Your task to perform on an android device: Open Google Chrome and open the bookmarks view Image 0: 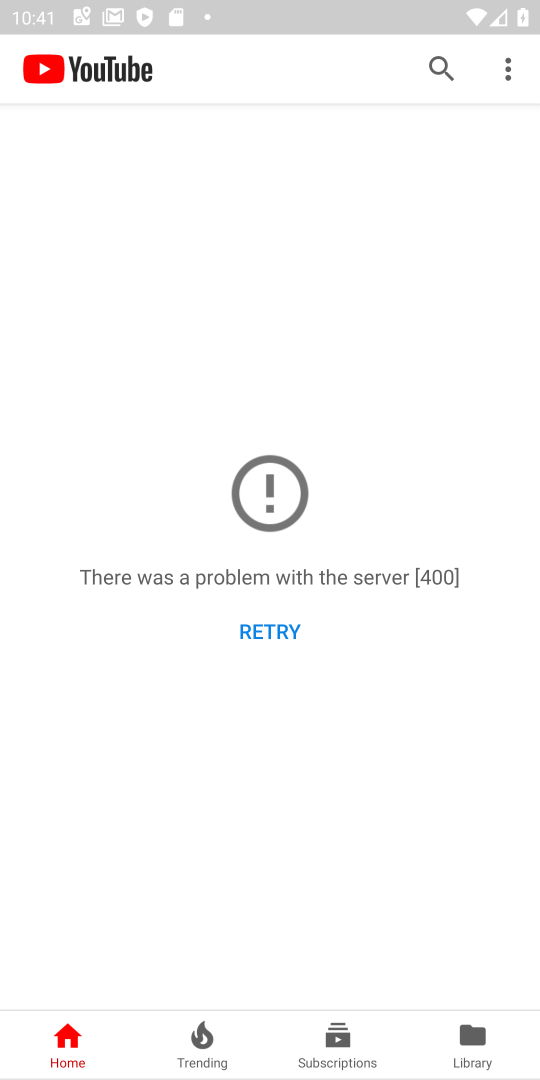
Step 0: press home button
Your task to perform on an android device: Open Google Chrome and open the bookmarks view Image 1: 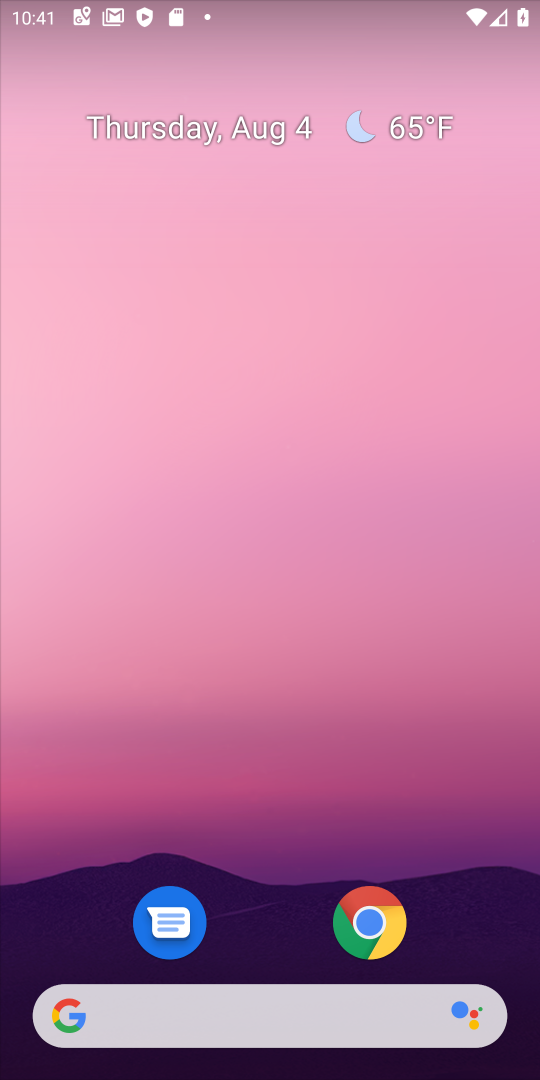
Step 1: click (354, 927)
Your task to perform on an android device: Open Google Chrome and open the bookmarks view Image 2: 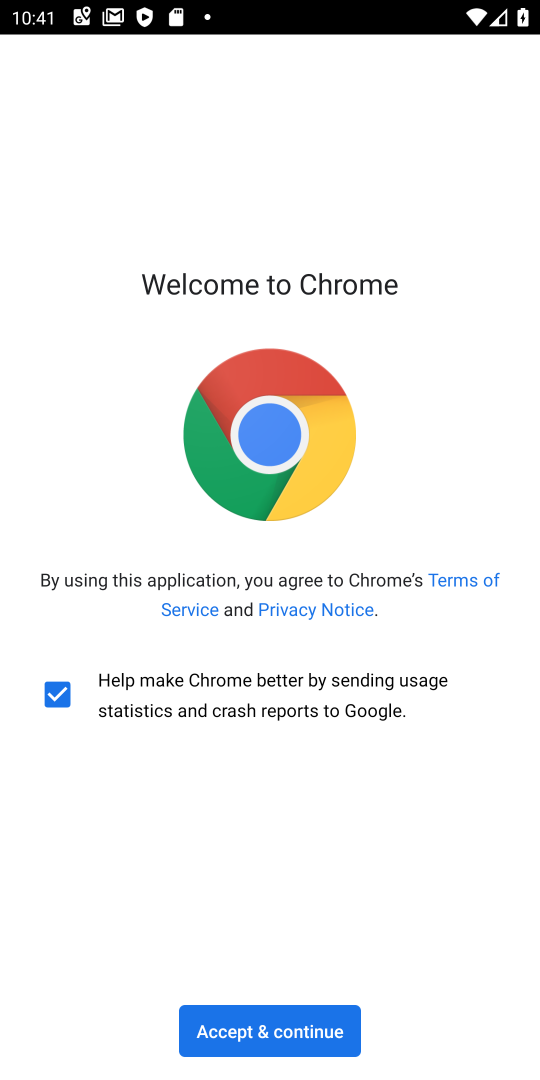
Step 2: click (254, 1045)
Your task to perform on an android device: Open Google Chrome and open the bookmarks view Image 3: 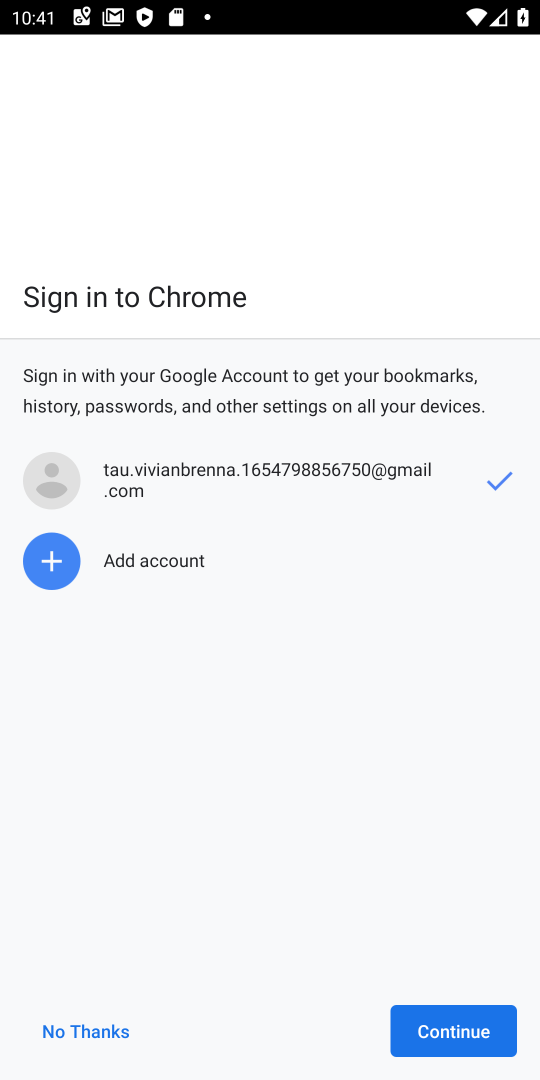
Step 3: click (456, 1034)
Your task to perform on an android device: Open Google Chrome and open the bookmarks view Image 4: 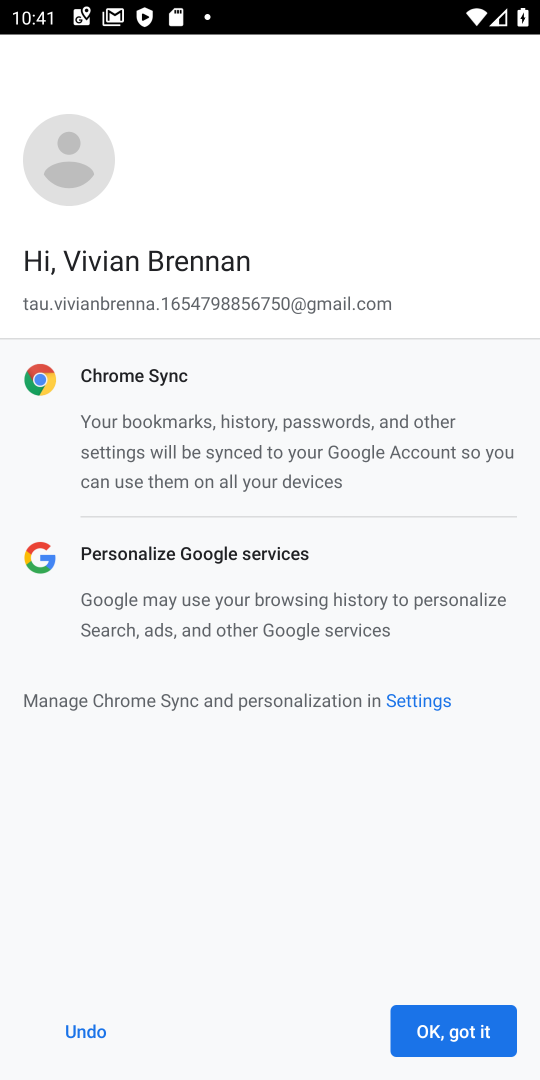
Step 4: click (458, 1028)
Your task to perform on an android device: Open Google Chrome and open the bookmarks view Image 5: 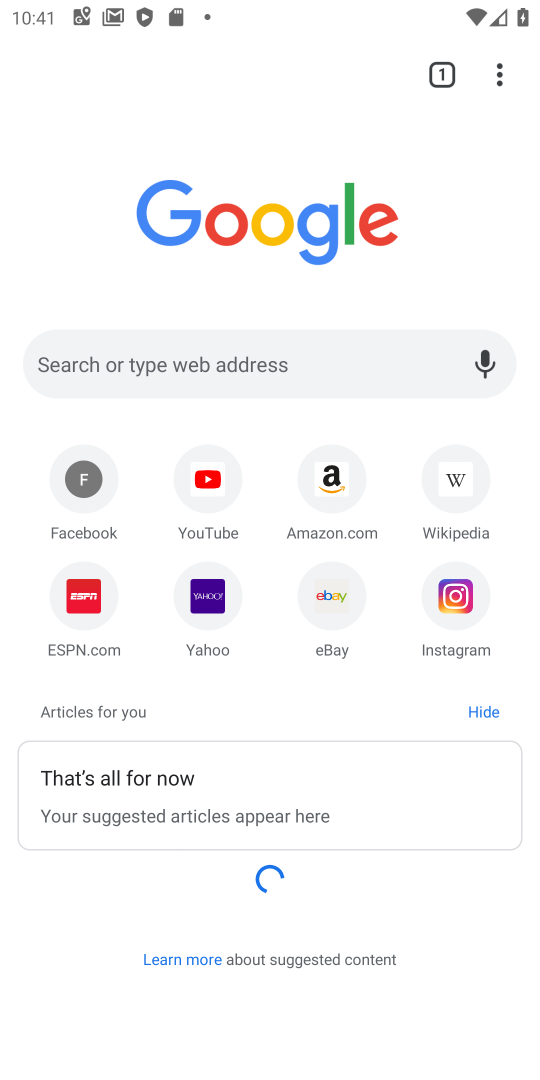
Step 5: click (497, 84)
Your task to perform on an android device: Open Google Chrome and open the bookmarks view Image 6: 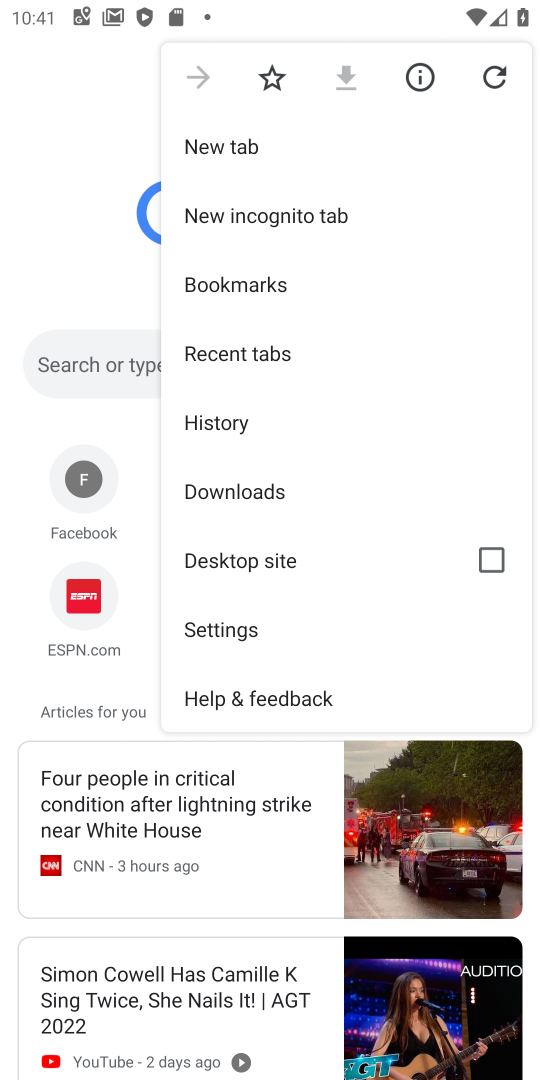
Step 6: click (266, 634)
Your task to perform on an android device: Open Google Chrome and open the bookmarks view Image 7: 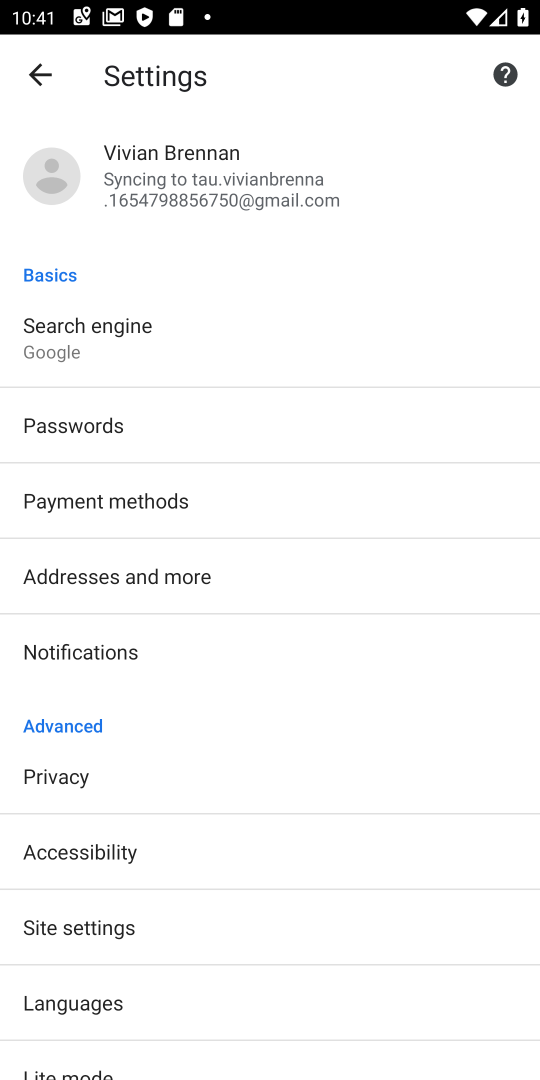
Step 7: click (48, 66)
Your task to perform on an android device: Open Google Chrome and open the bookmarks view Image 8: 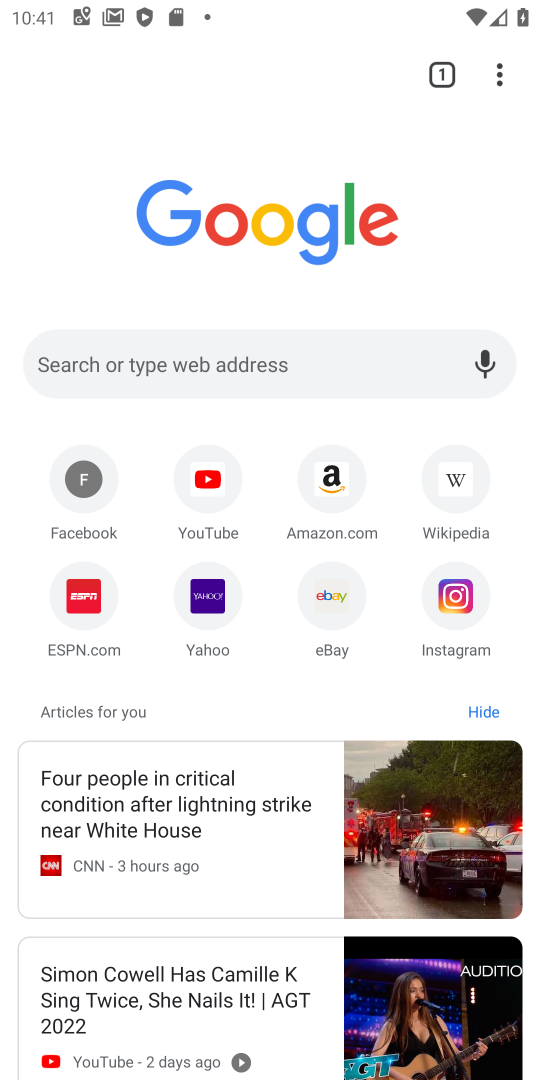
Step 8: click (505, 84)
Your task to perform on an android device: Open Google Chrome and open the bookmarks view Image 9: 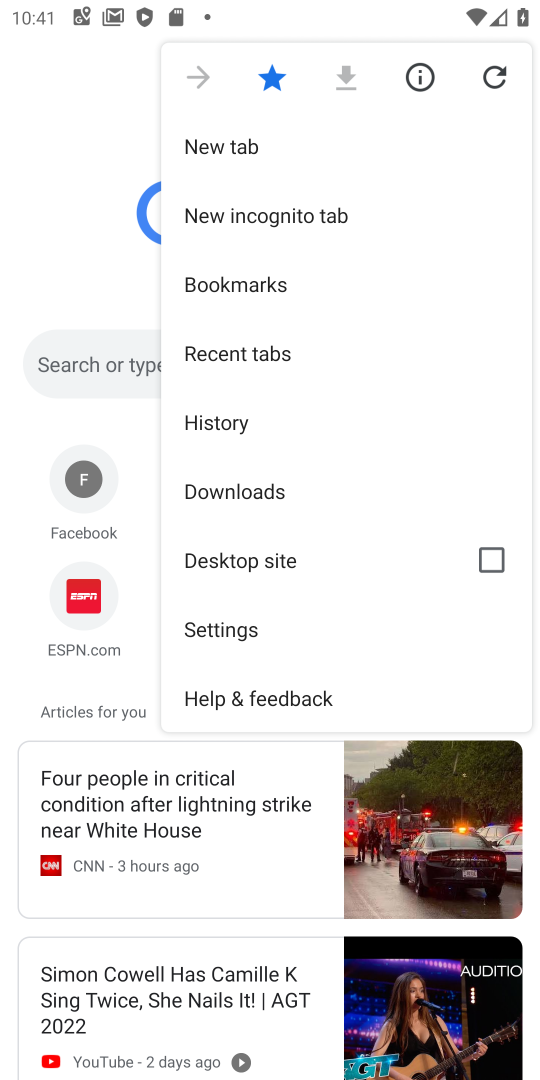
Step 9: click (272, 300)
Your task to perform on an android device: Open Google Chrome and open the bookmarks view Image 10: 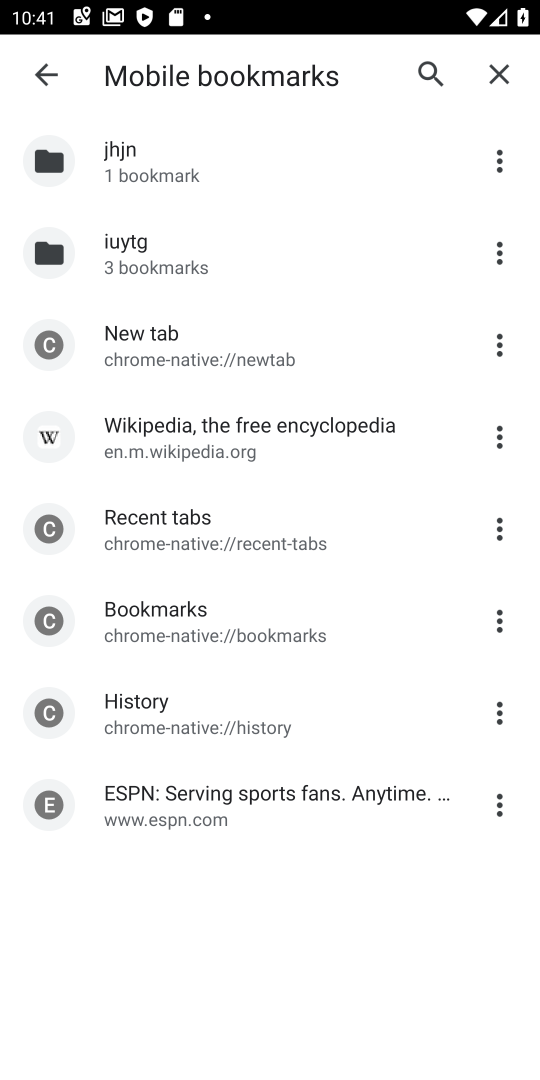
Step 10: task complete